Your task to perform on an android device: make emails show in primary in the gmail app Image 0: 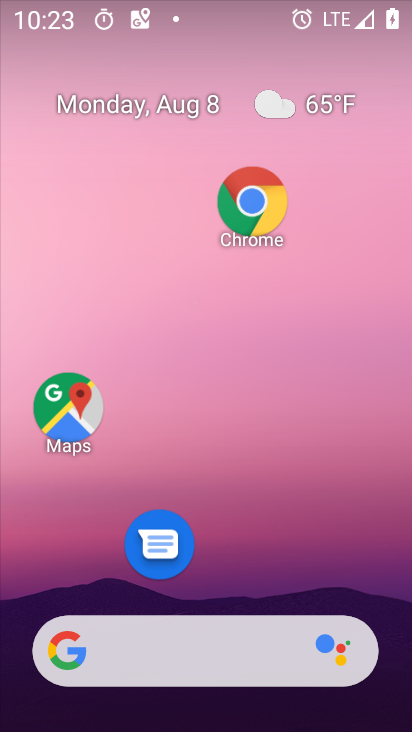
Step 0: press home button
Your task to perform on an android device: make emails show in primary in the gmail app Image 1: 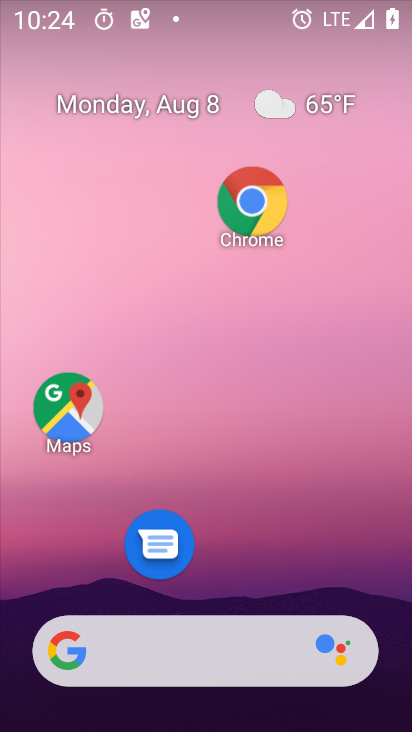
Step 1: drag from (213, 586) to (244, 133)
Your task to perform on an android device: make emails show in primary in the gmail app Image 2: 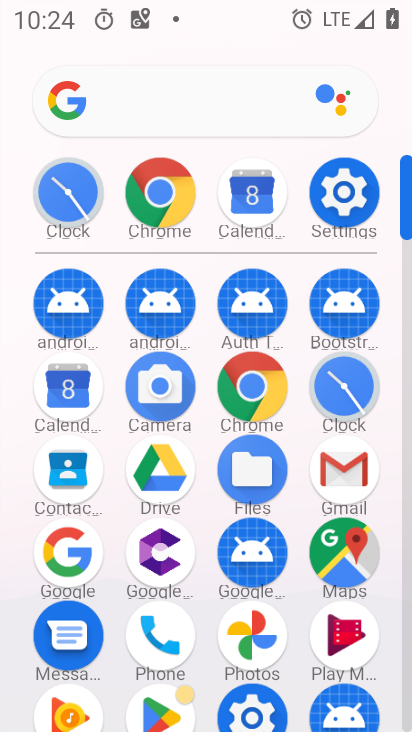
Step 2: click (338, 464)
Your task to perform on an android device: make emails show in primary in the gmail app Image 3: 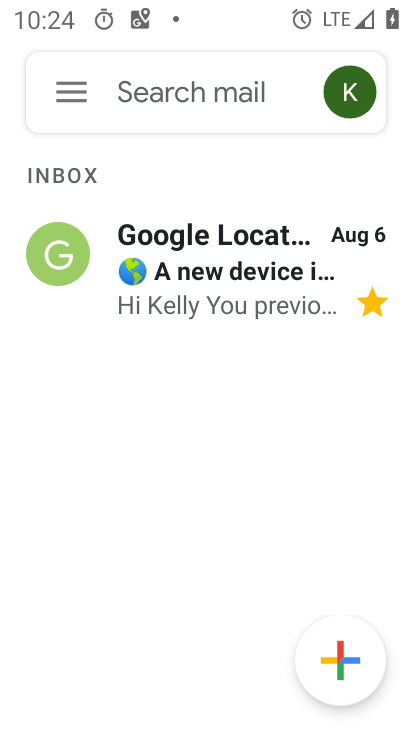
Step 3: click (75, 92)
Your task to perform on an android device: make emails show in primary in the gmail app Image 4: 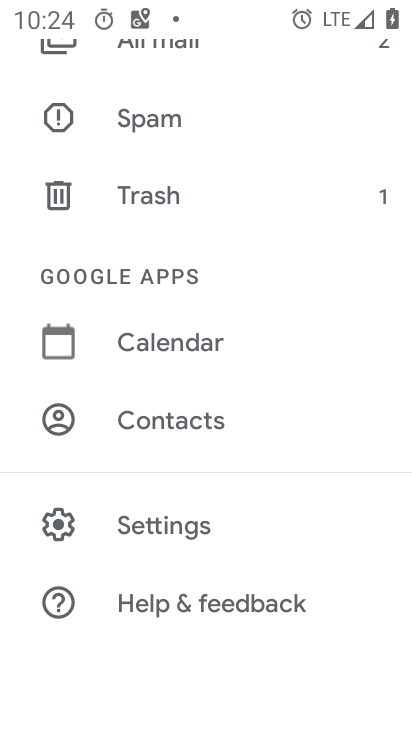
Step 4: click (184, 522)
Your task to perform on an android device: make emails show in primary in the gmail app Image 5: 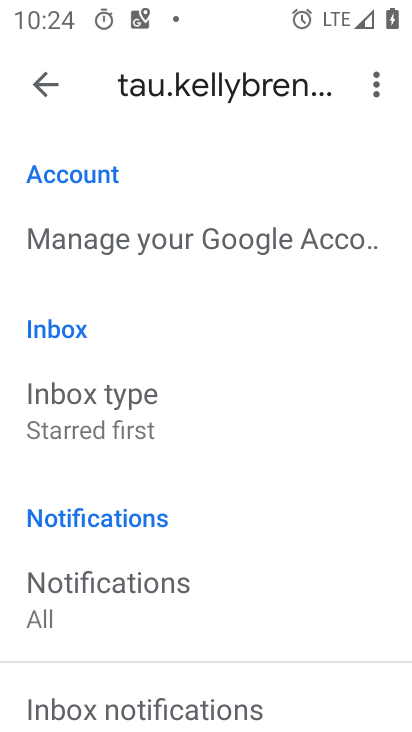
Step 5: click (188, 410)
Your task to perform on an android device: make emails show in primary in the gmail app Image 6: 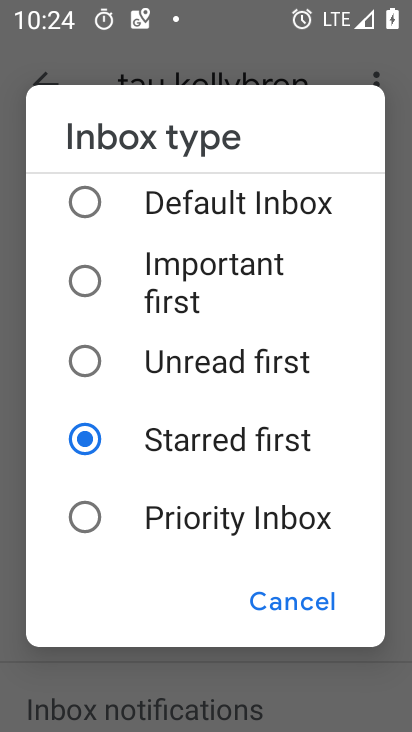
Step 6: click (81, 211)
Your task to perform on an android device: make emails show in primary in the gmail app Image 7: 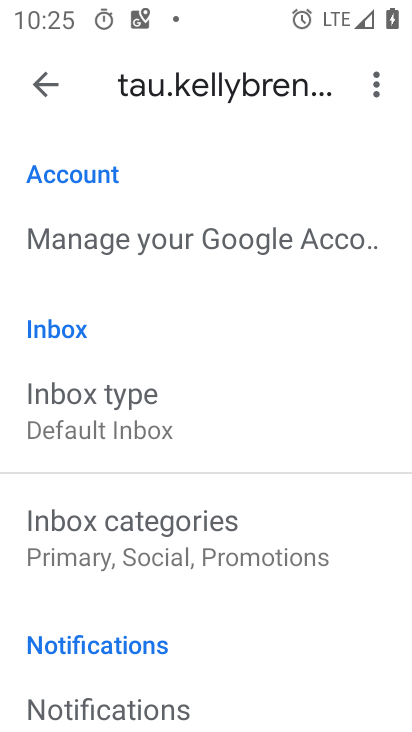
Step 7: task complete